Your task to perform on an android device: What's the weather going to be tomorrow? Image 0: 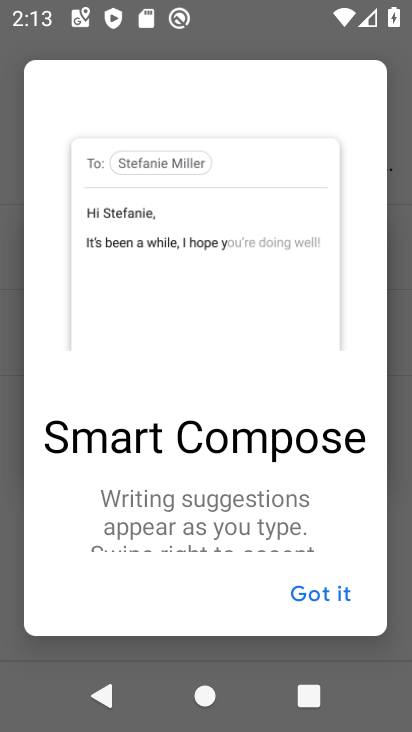
Step 0: drag from (385, 557) to (403, 458)
Your task to perform on an android device: What's the weather going to be tomorrow? Image 1: 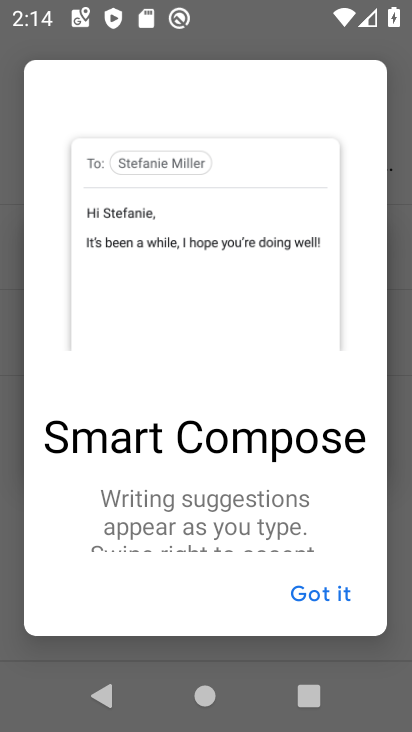
Step 1: press home button
Your task to perform on an android device: What's the weather going to be tomorrow? Image 2: 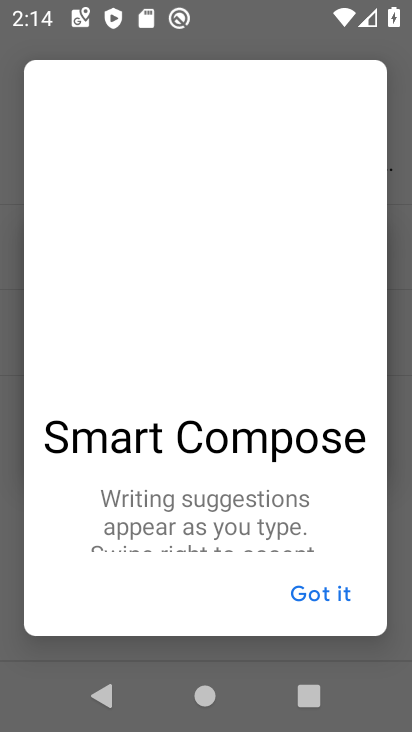
Step 2: drag from (403, 458) to (406, 609)
Your task to perform on an android device: What's the weather going to be tomorrow? Image 3: 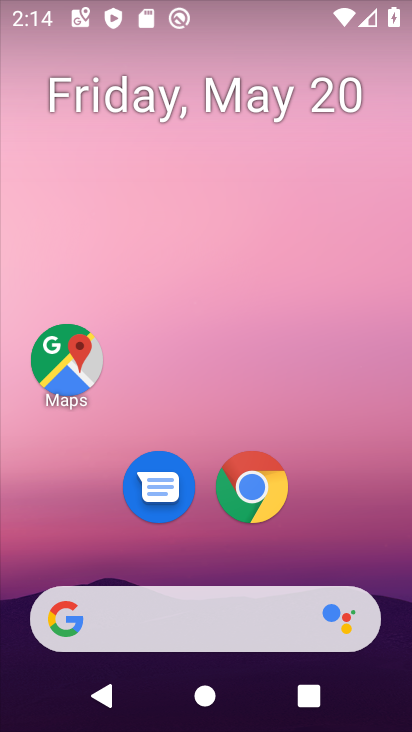
Step 3: drag from (377, 550) to (375, 109)
Your task to perform on an android device: What's the weather going to be tomorrow? Image 4: 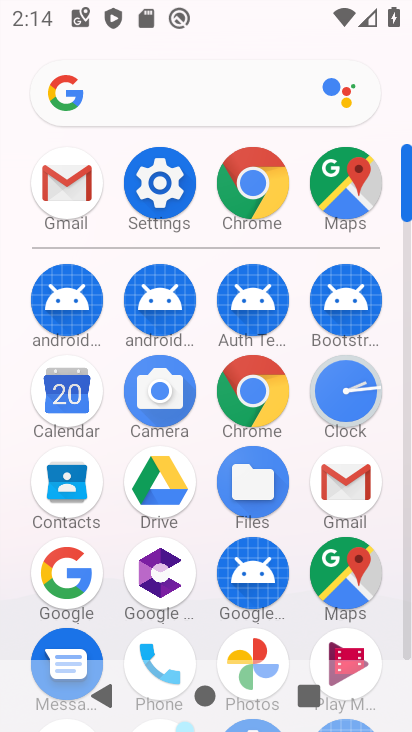
Step 4: click (69, 92)
Your task to perform on an android device: What's the weather going to be tomorrow? Image 5: 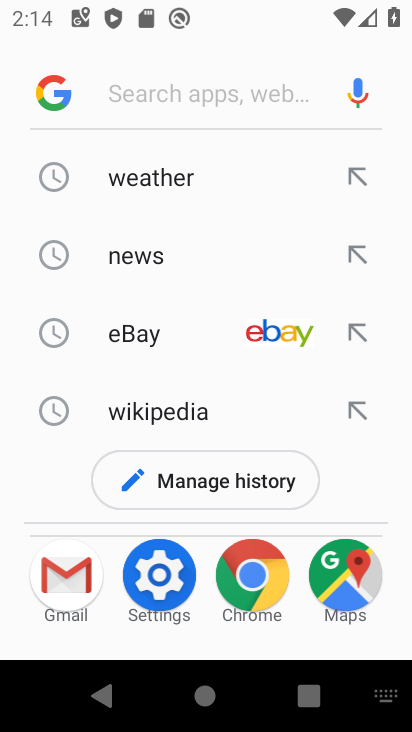
Step 5: click (70, 94)
Your task to perform on an android device: What's the weather going to be tomorrow? Image 6: 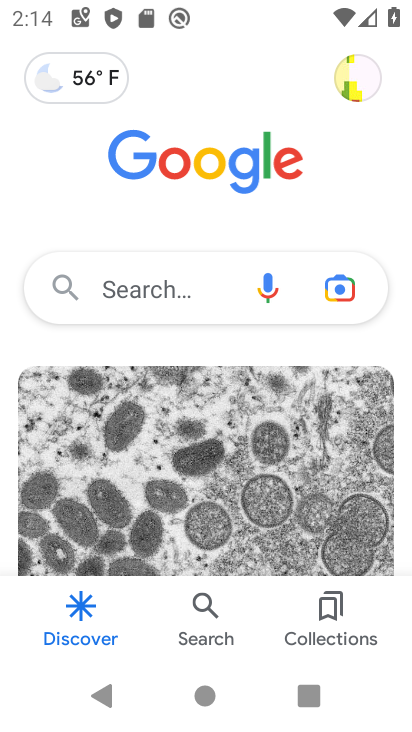
Step 6: click (73, 86)
Your task to perform on an android device: What's the weather going to be tomorrow? Image 7: 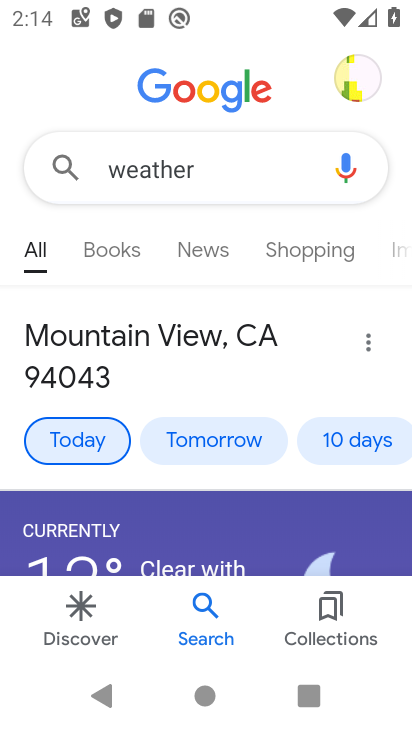
Step 7: task complete